Your task to perform on an android device: set an alarm Image 0: 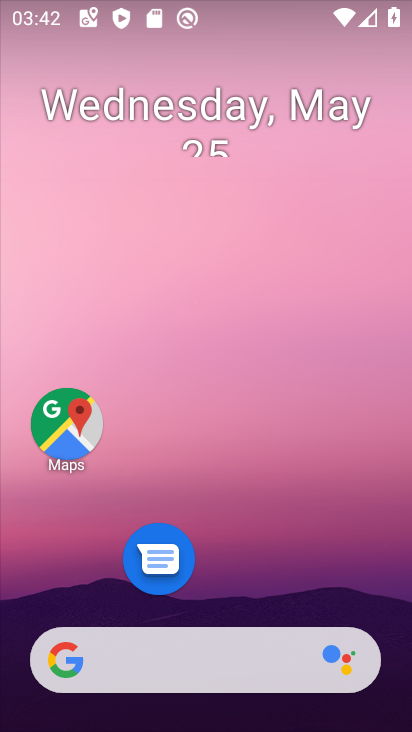
Step 0: drag from (220, 600) to (203, 115)
Your task to perform on an android device: set an alarm Image 1: 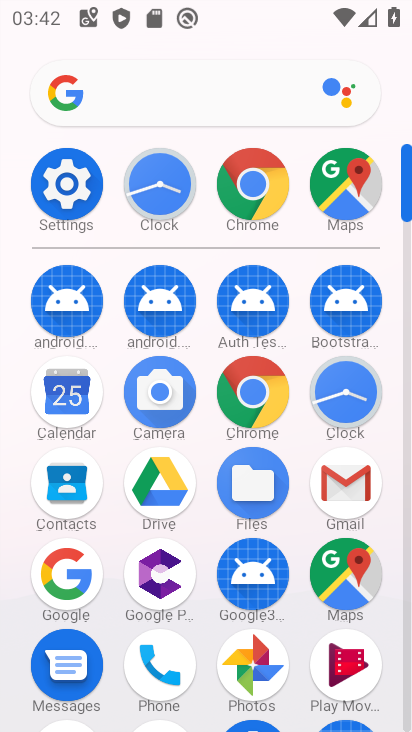
Step 1: click (346, 387)
Your task to perform on an android device: set an alarm Image 2: 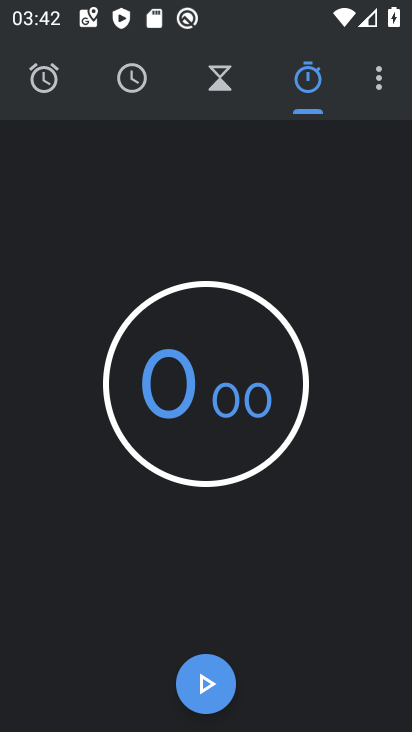
Step 2: click (40, 79)
Your task to perform on an android device: set an alarm Image 3: 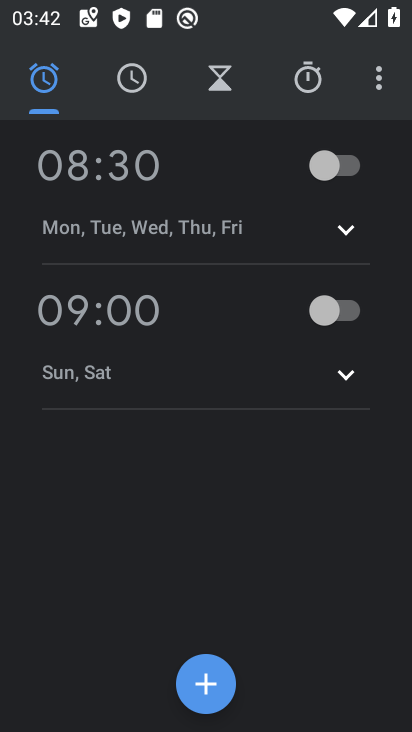
Step 3: click (334, 150)
Your task to perform on an android device: set an alarm Image 4: 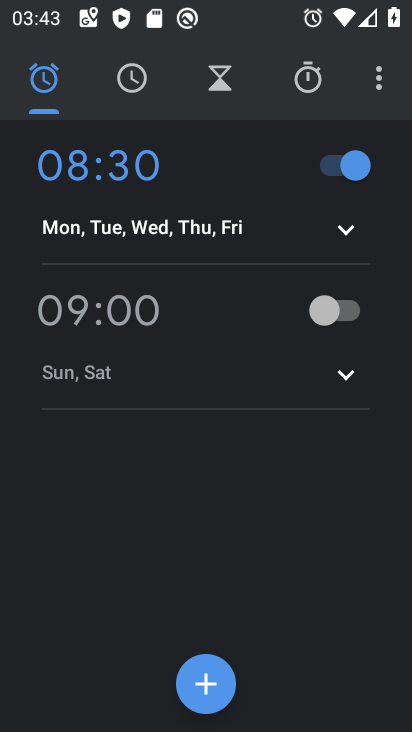
Step 4: task complete